Your task to perform on an android device: toggle wifi Image 0: 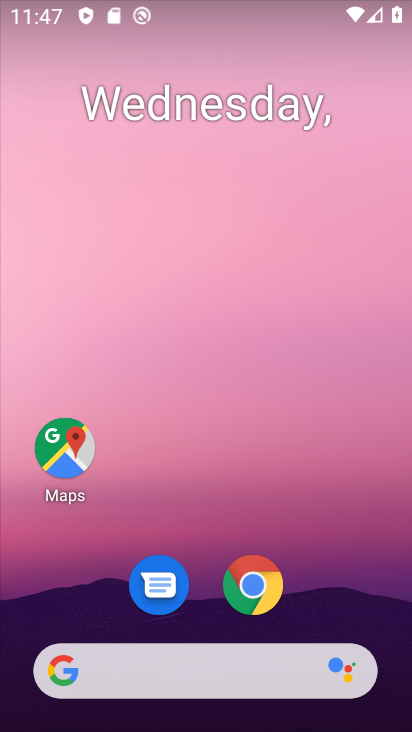
Step 0: drag from (230, 514) to (240, 58)
Your task to perform on an android device: toggle wifi Image 1: 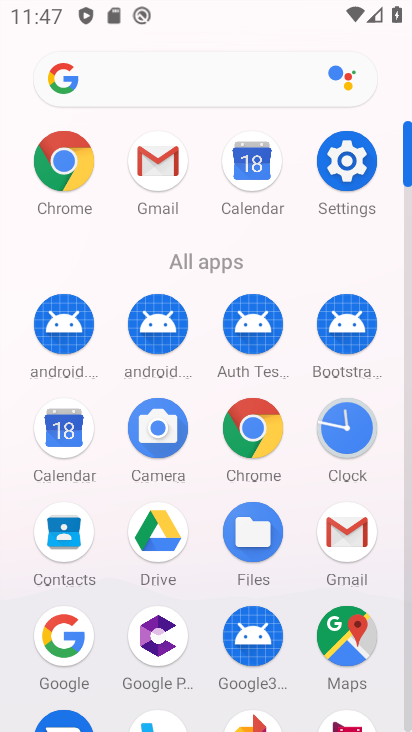
Step 1: click (345, 170)
Your task to perform on an android device: toggle wifi Image 2: 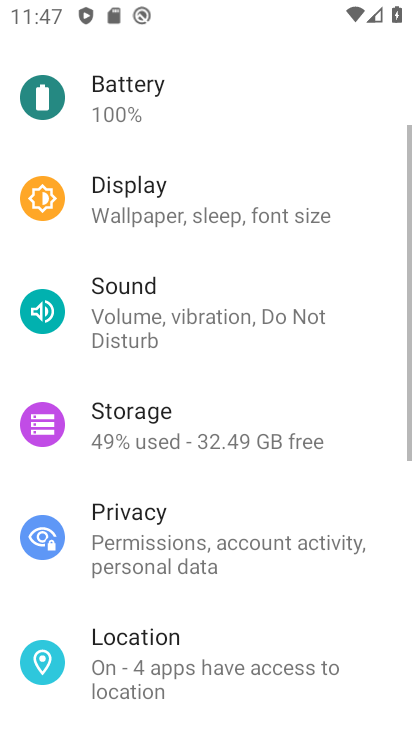
Step 2: drag from (265, 183) to (317, 610)
Your task to perform on an android device: toggle wifi Image 3: 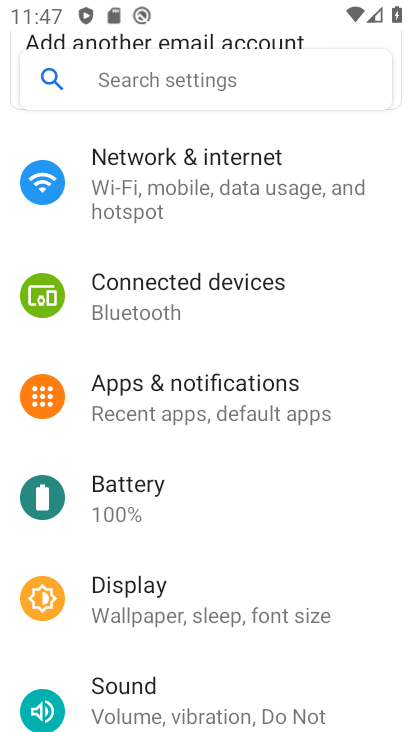
Step 3: click (247, 188)
Your task to perform on an android device: toggle wifi Image 4: 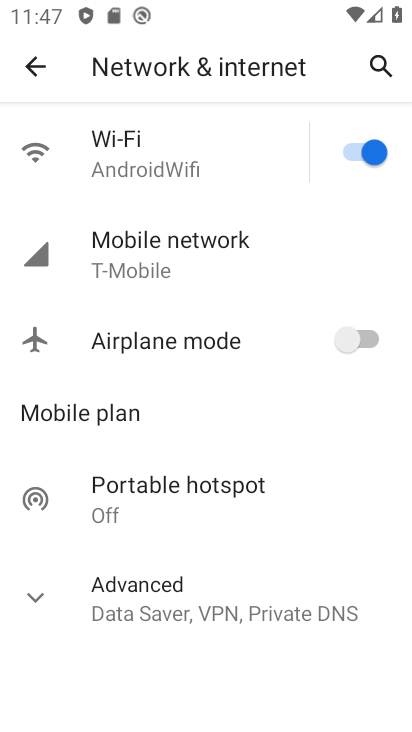
Step 4: click (352, 147)
Your task to perform on an android device: toggle wifi Image 5: 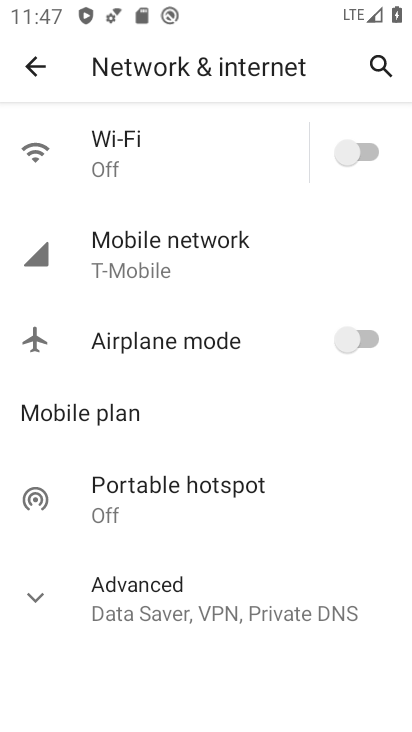
Step 5: task complete